Your task to perform on an android device: turn off data saver in the chrome app Image 0: 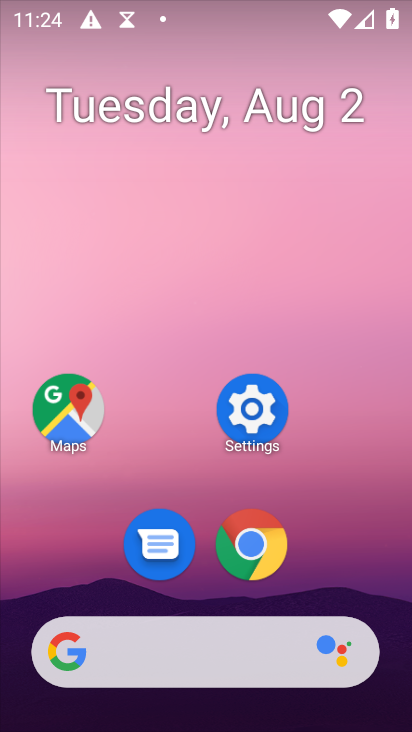
Step 0: click (256, 544)
Your task to perform on an android device: turn off data saver in the chrome app Image 1: 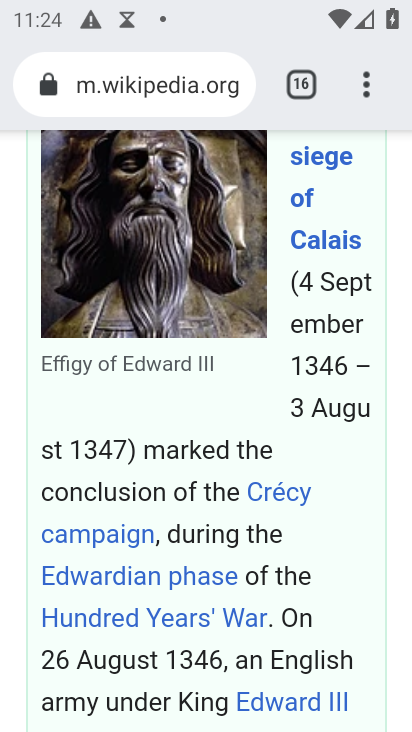
Step 1: drag from (367, 84) to (187, 595)
Your task to perform on an android device: turn off data saver in the chrome app Image 2: 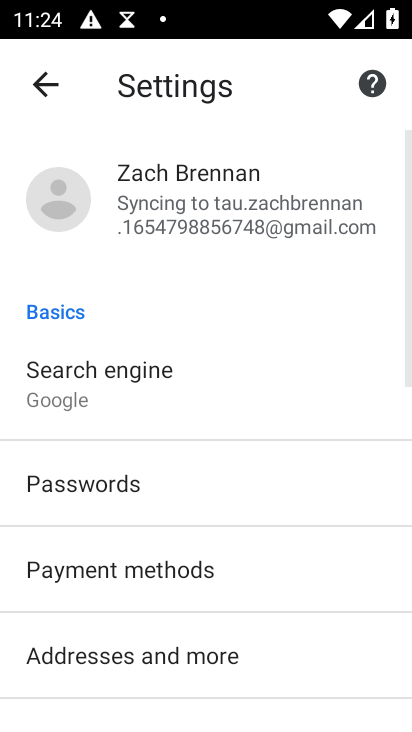
Step 2: drag from (273, 646) to (317, 268)
Your task to perform on an android device: turn off data saver in the chrome app Image 3: 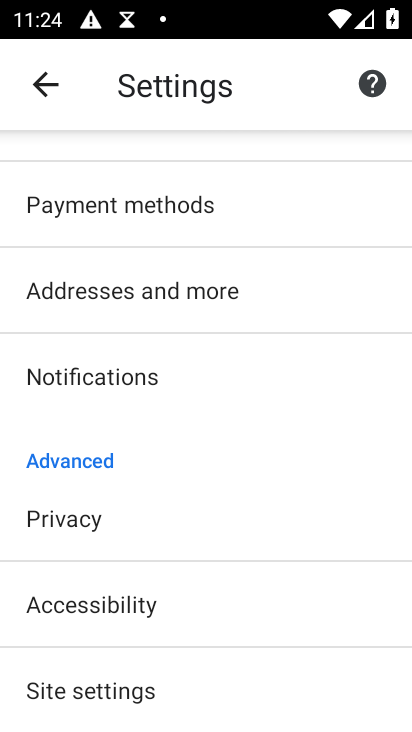
Step 3: drag from (255, 599) to (326, 162)
Your task to perform on an android device: turn off data saver in the chrome app Image 4: 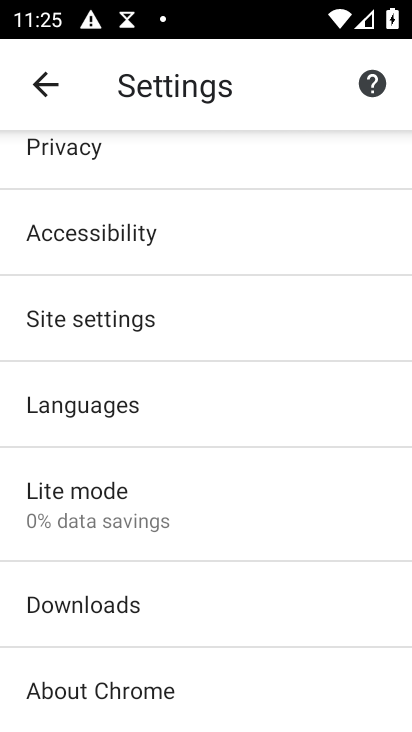
Step 4: click (87, 500)
Your task to perform on an android device: turn off data saver in the chrome app Image 5: 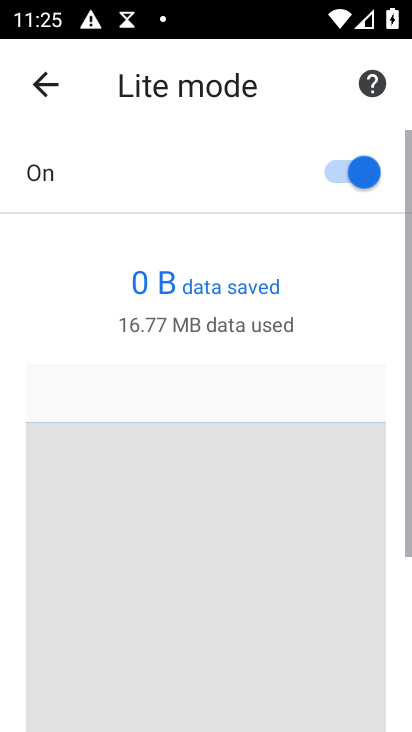
Step 5: click (336, 169)
Your task to perform on an android device: turn off data saver in the chrome app Image 6: 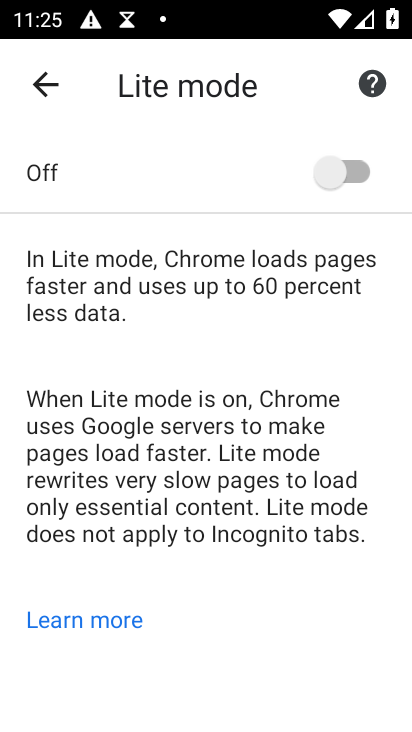
Step 6: task complete